Your task to perform on an android device: check google app version Image 0: 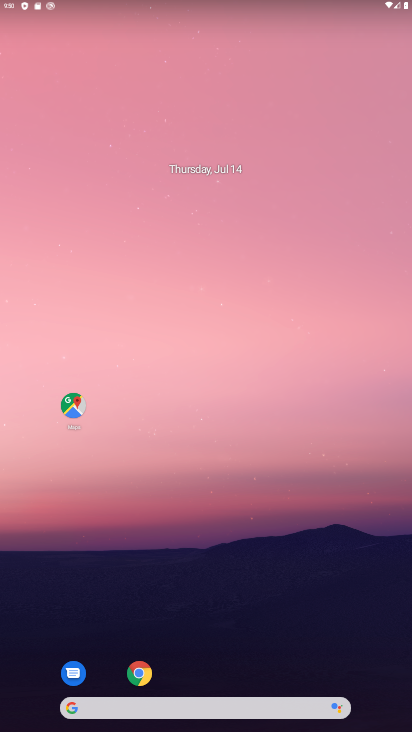
Step 0: drag from (220, 614) to (194, 121)
Your task to perform on an android device: check google app version Image 1: 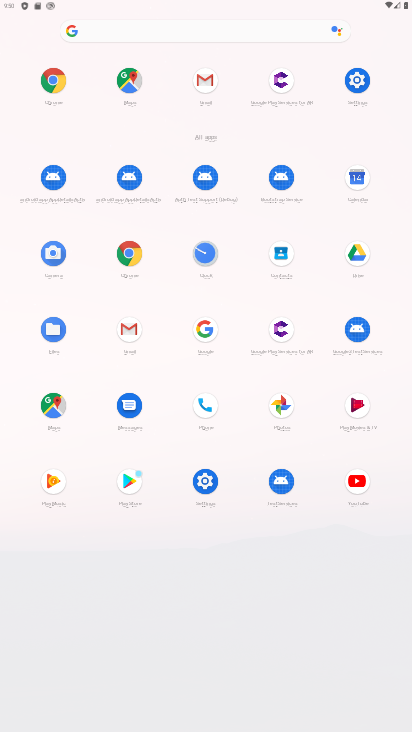
Step 1: click (199, 328)
Your task to perform on an android device: check google app version Image 2: 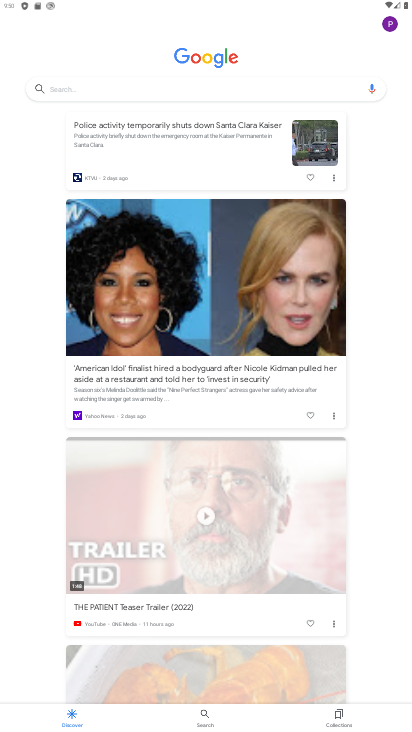
Step 2: click (391, 21)
Your task to perform on an android device: check google app version Image 3: 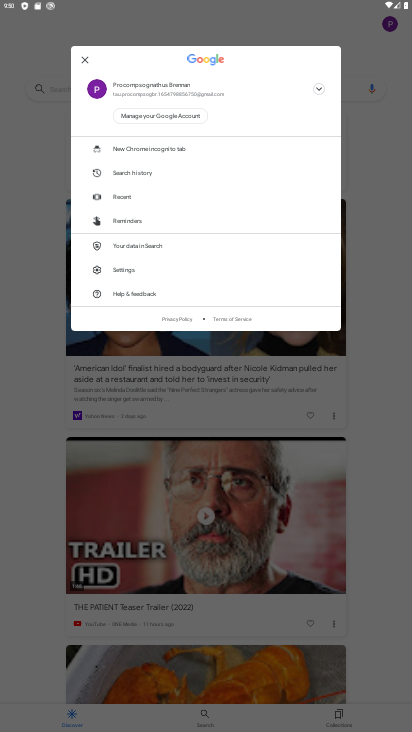
Step 3: click (124, 267)
Your task to perform on an android device: check google app version Image 4: 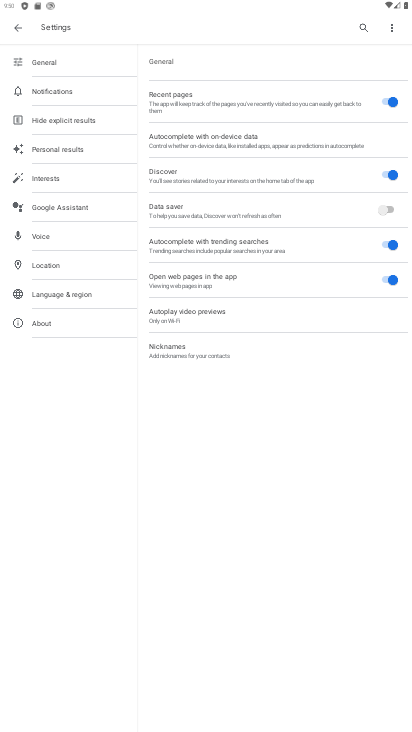
Step 4: click (40, 320)
Your task to perform on an android device: check google app version Image 5: 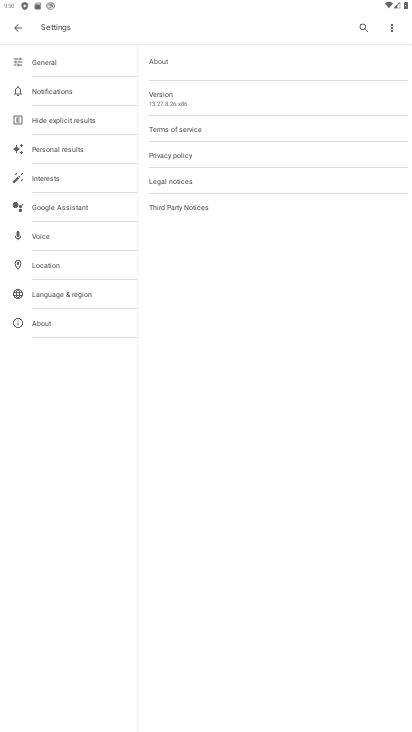
Step 5: task complete